Your task to perform on an android device: turn off location history Image 0: 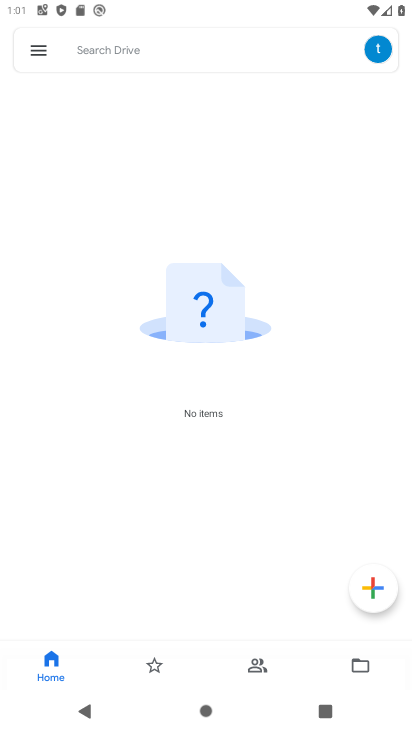
Step 0: press home button
Your task to perform on an android device: turn off location history Image 1: 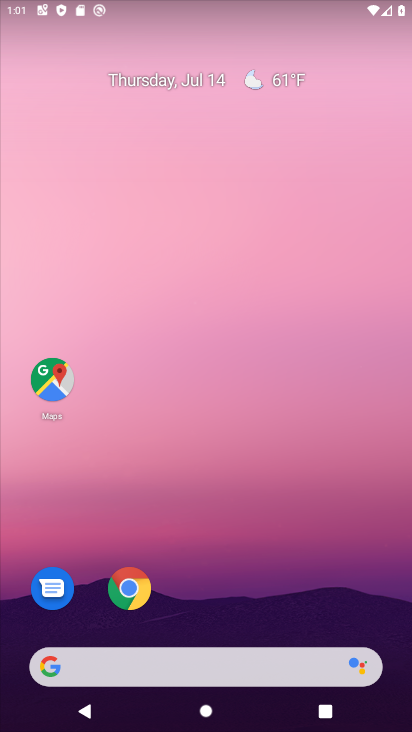
Step 1: drag from (221, 599) to (230, 193)
Your task to perform on an android device: turn off location history Image 2: 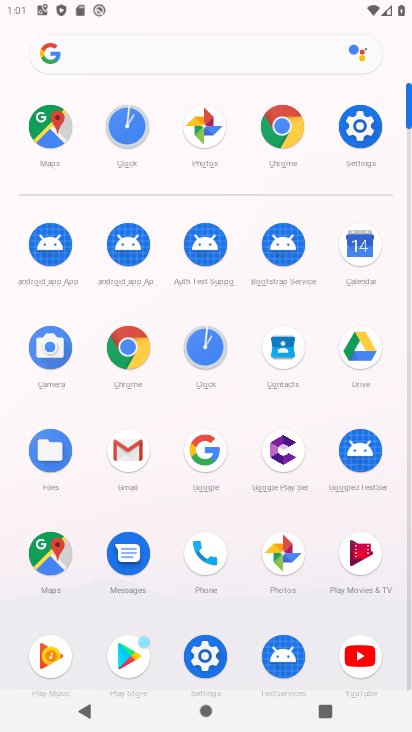
Step 2: click (363, 120)
Your task to perform on an android device: turn off location history Image 3: 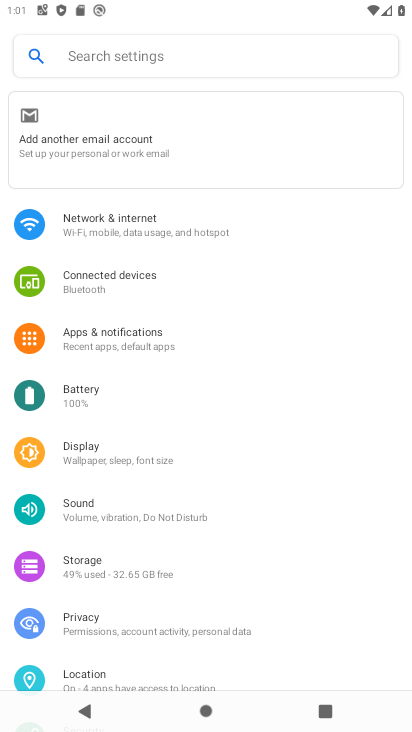
Step 3: drag from (104, 558) to (145, 270)
Your task to perform on an android device: turn off location history Image 4: 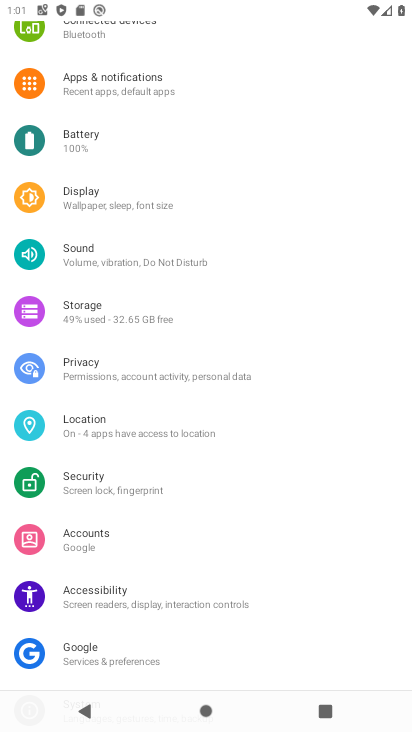
Step 4: click (104, 487)
Your task to perform on an android device: turn off location history Image 5: 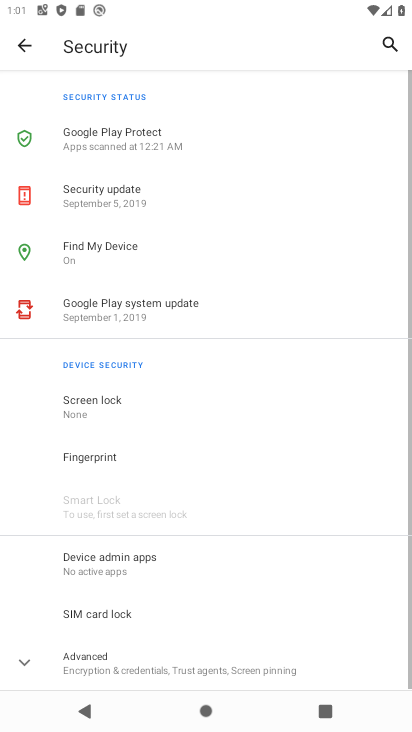
Step 5: click (13, 31)
Your task to perform on an android device: turn off location history Image 6: 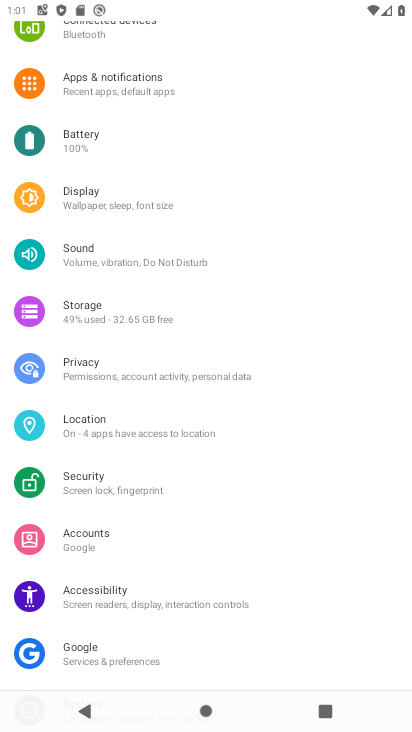
Step 6: click (140, 431)
Your task to perform on an android device: turn off location history Image 7: 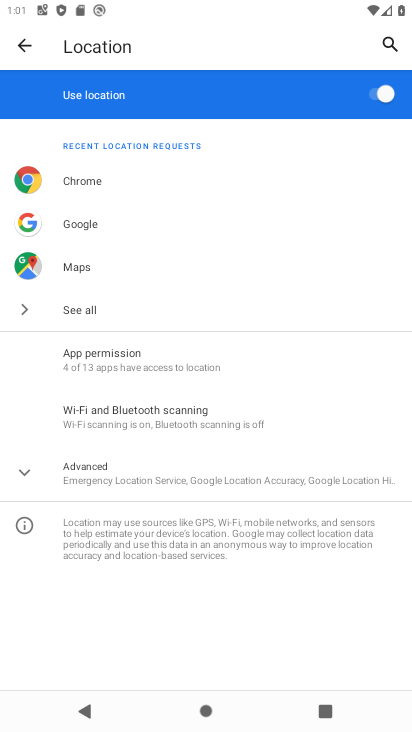
Step 7: click (147, 471)
Your task to perform on an android device: turn off location history Image 8: 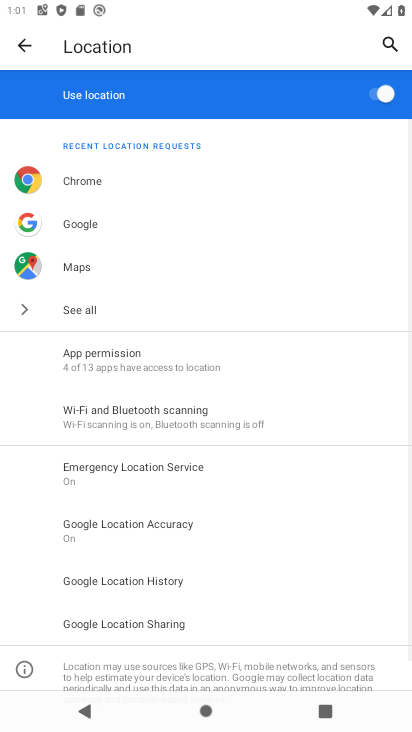
Step 8: click (177, 583)
Your task to perform on an android device: turn off location history Image 9: 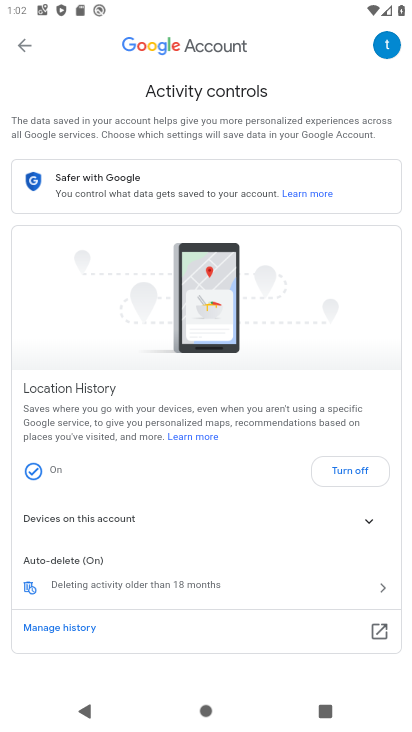
Step 9: click (337, 470)
Your task to perform on an android device: turn off location history Image 10: 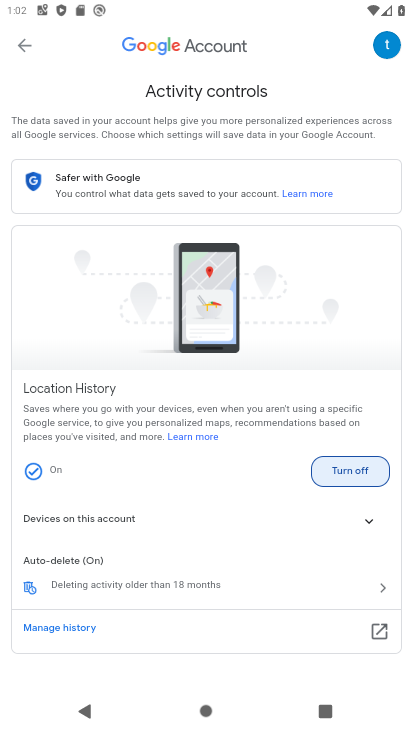
Step 10: task complete